Your task to perform on an android device: Go to settings Image 0: 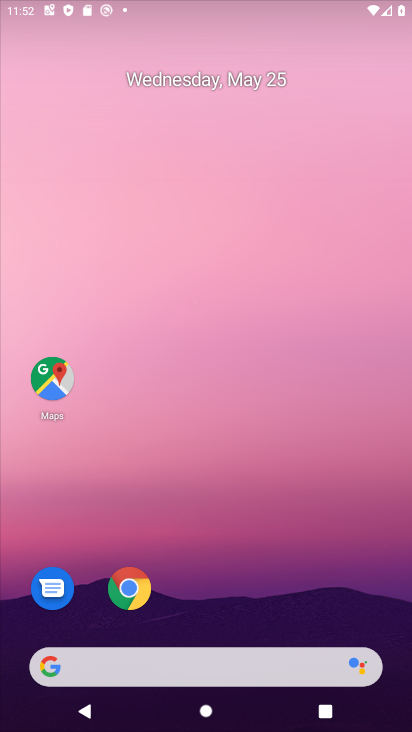
Step 0: drag from (265, 426) to (227, 5)
Your task to perform on an android device: Go to settings Image 1: 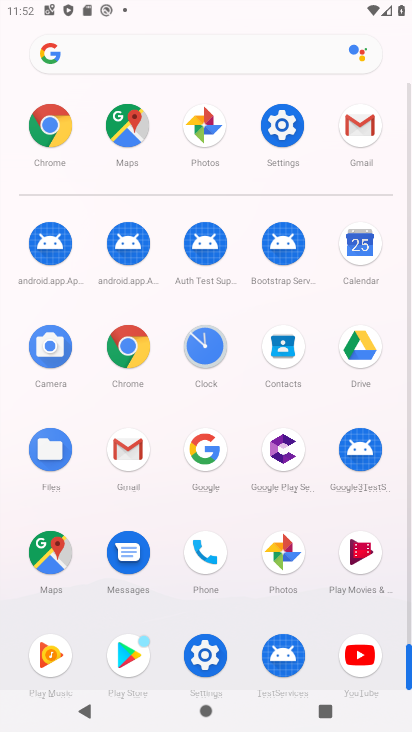
Step 1: click (283, 122)
Your task to perform on an android device: Go to settings Image 2: 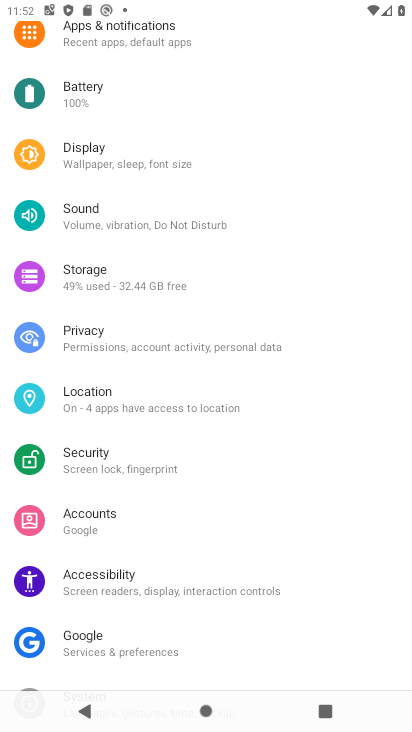
Step 2: task complete